Your task to perform on an android device: set default search engine in the chrome app Image 0: 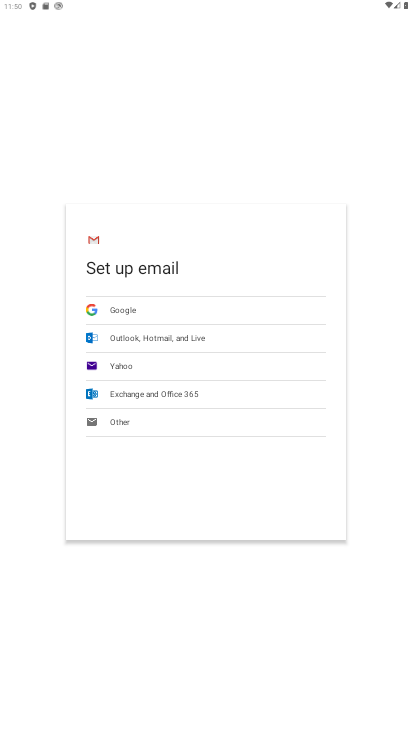
Step 0: press home button
Your task to perform on an android device: set default search engine in the chrome app Image 1: 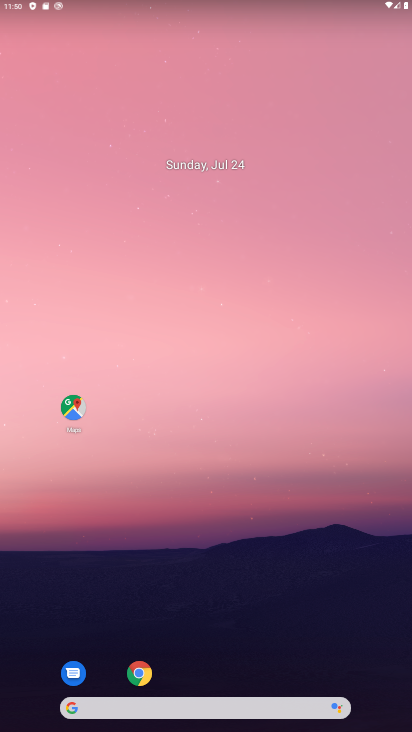
Step 1: click (141, 675)
Your task to perform on an android device: set default search engine in the chrome app Image 2: 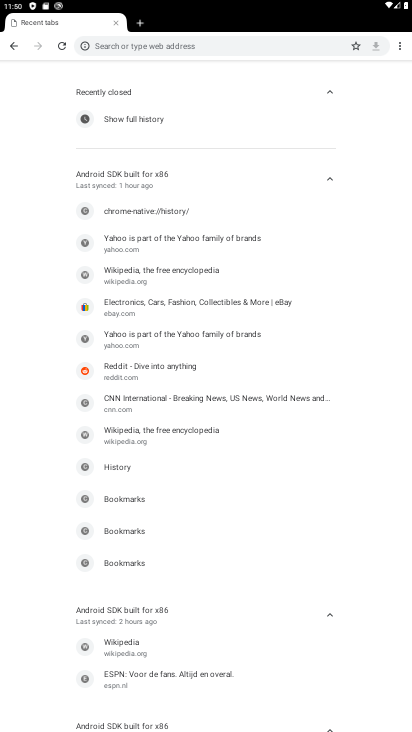
Step 2: click (400, 47)
Your task to perform on an android device: set default search engine in the chrome app Image 3: 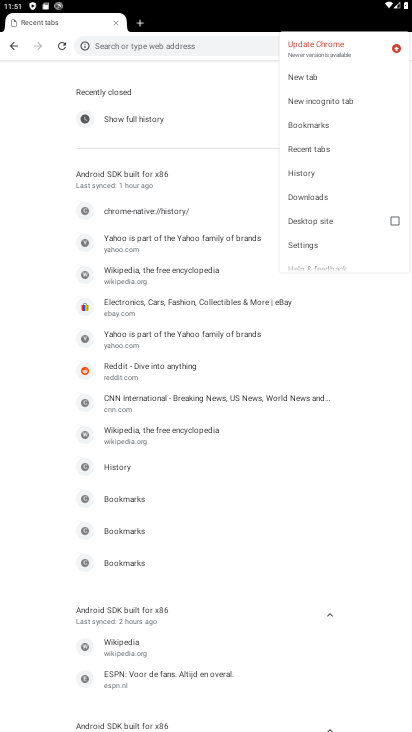
Step 3: click (306, 246)
Your task to perform on an android device: set default search engine in the chrome app Image 4: 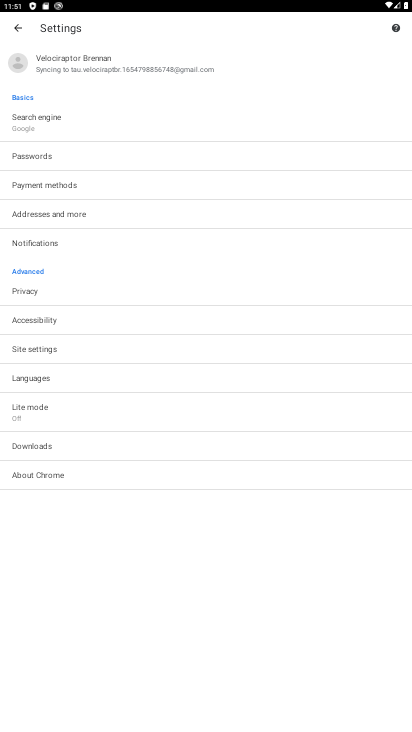
Step 4: click (17, 123)
Your task to perform on an android device: set default search engine in the chrome app Image 5: 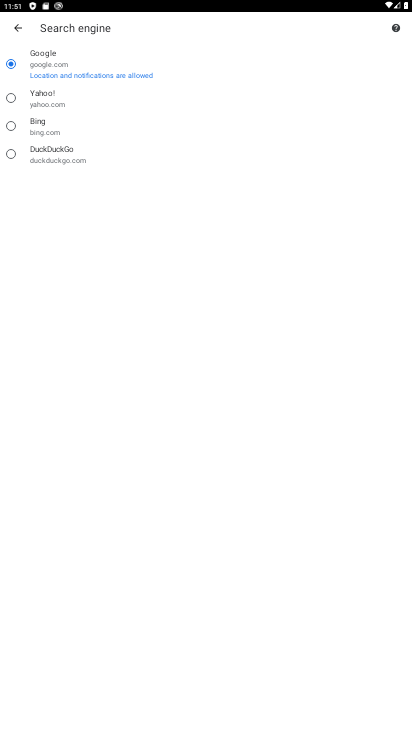
Step 5: click (11, 63)
Your task to perform on an android device: set default search engine in the chrome app Image 6: 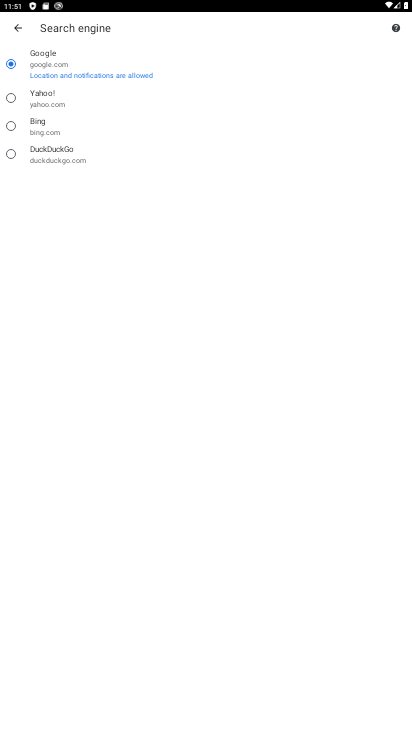
Step 6: task complete